Your task to perform on an android device: Check the weather Image 0: 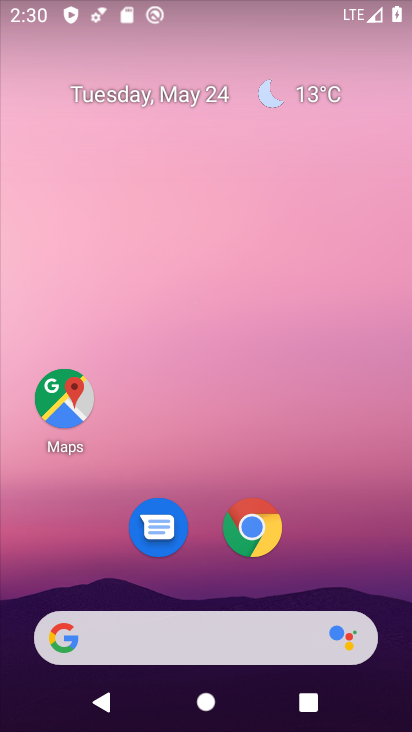
Step 0: click (226, 631)
Your task to perform on an android device: Check the weather Image 1: 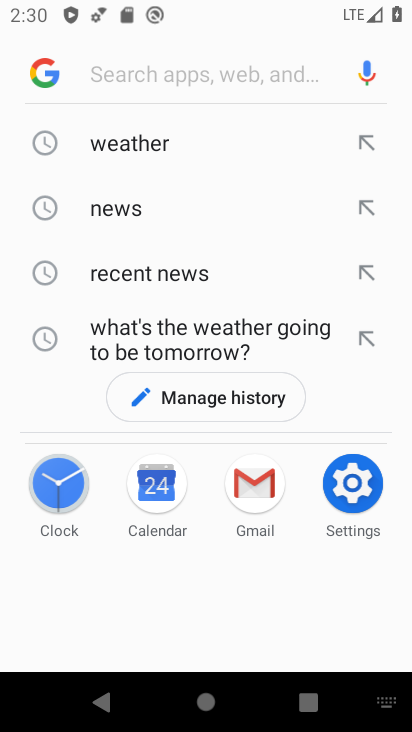
Step 1: type "weather"
Your task to perform on an android device: Check the weather Image 2: 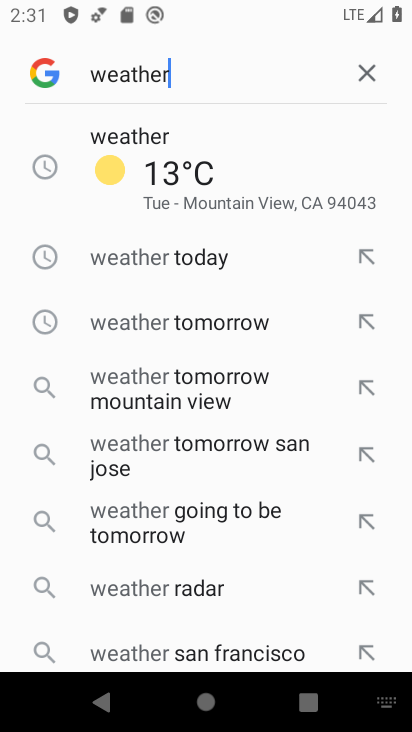
Step 2: click (173, 177)
Your task to perform on an android device: Check the weather Image 3: 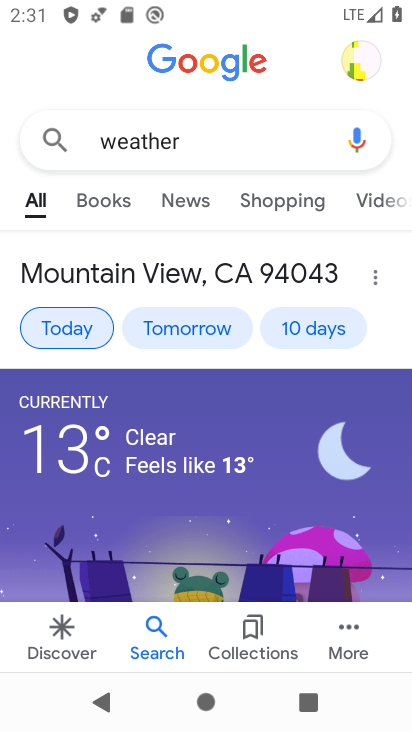
Step 3: task complete